Your task to perform on an android device: turn on priority inbox in the gmail app Image 0: 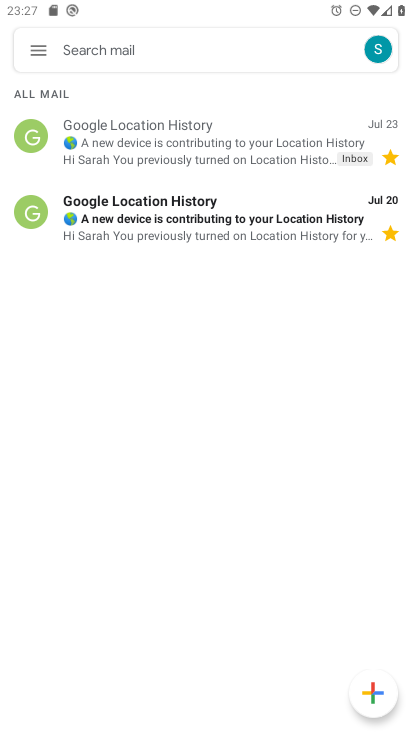
Step 0: click (37, 48)
Your task to perform on an android device: turn on priority inbox in the gmail app Image 1: 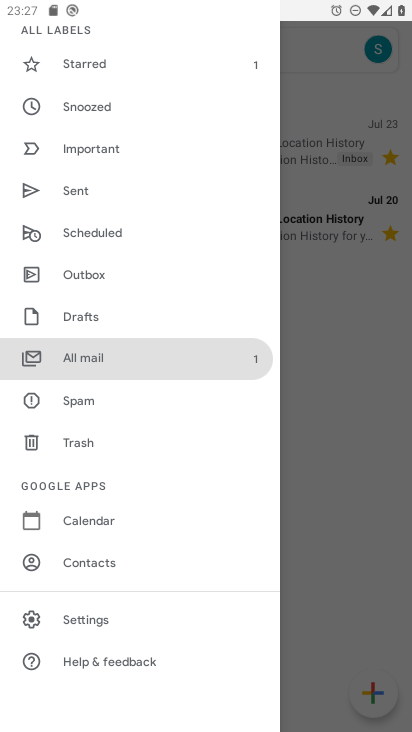
Step 1: click (86, 626)
Your task to perform on an android device: turn on priority inbox in the gmail app Image 2: 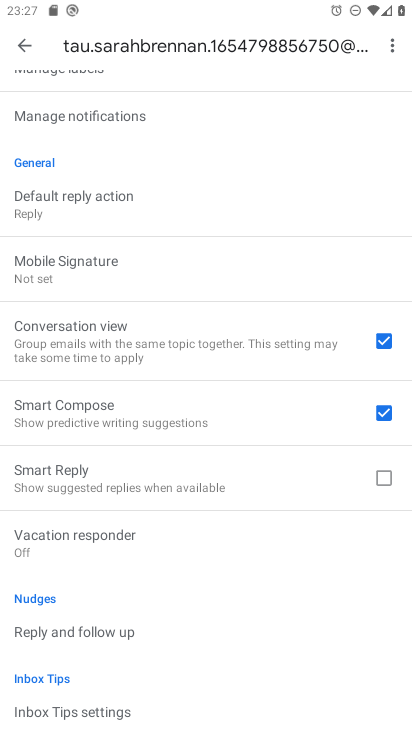
Step 2: task complete